Your task to perform on an android device: What's a good restaurant in New York? Image 0: 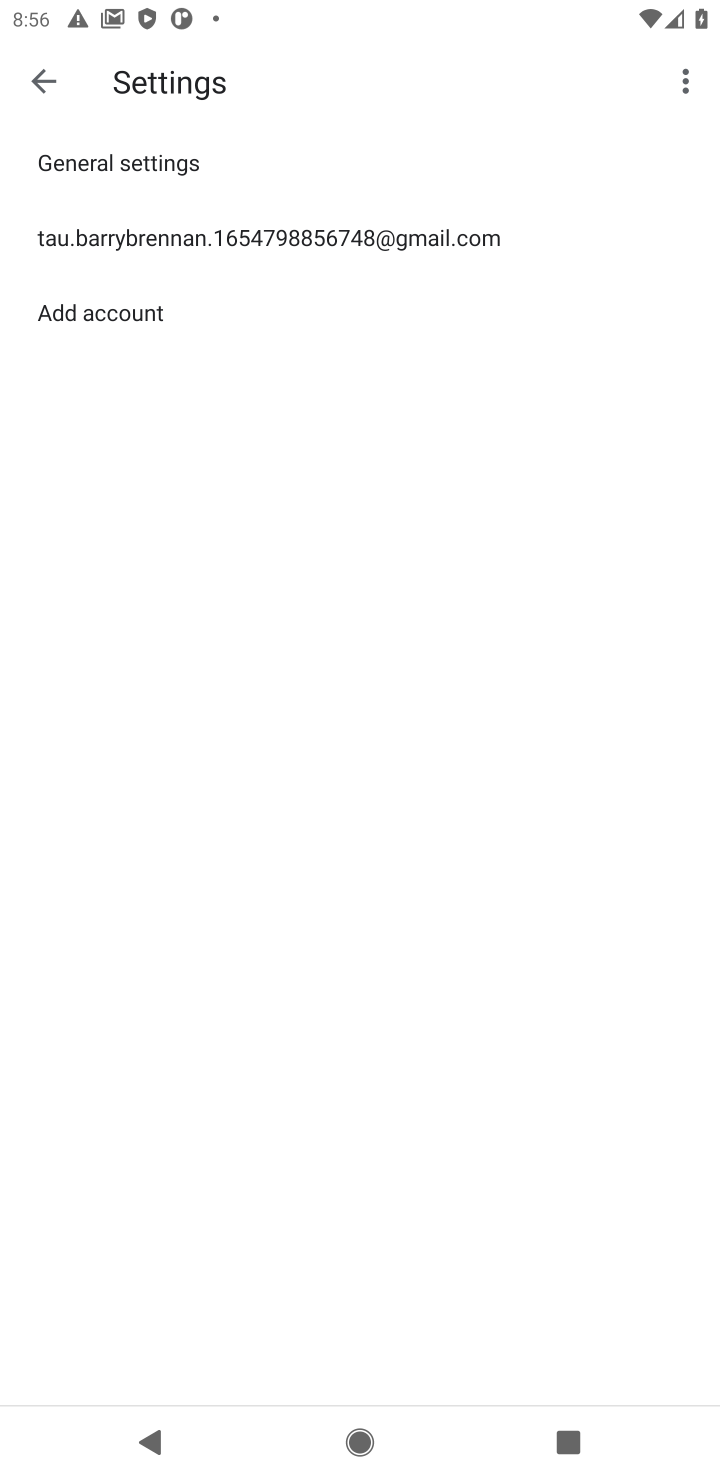
Step 0: press home button
Your task to perform on an android device: What's a good restaurant in New York? Image 1: 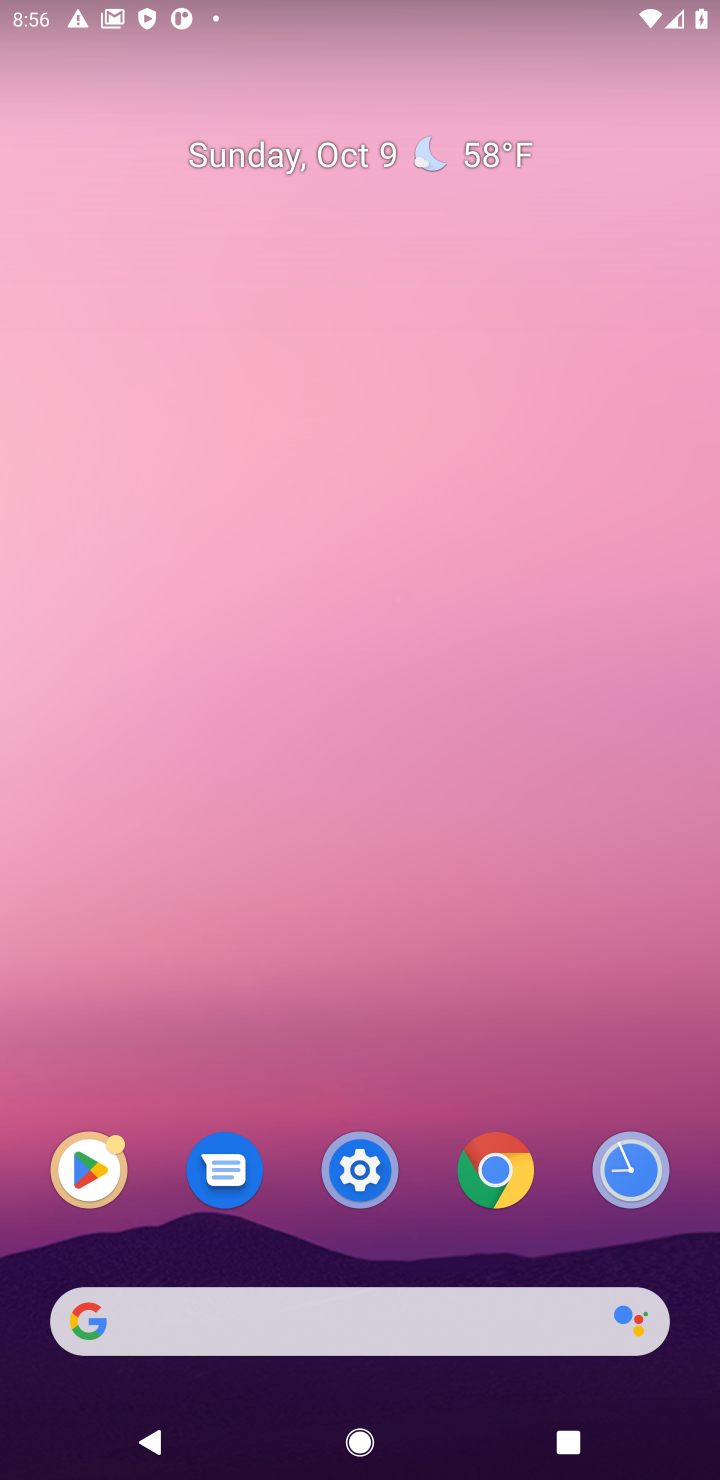
Step 1: click (366, 1319)
Your task to perform on an android device: What's a good restaurant in New York? Image 2: 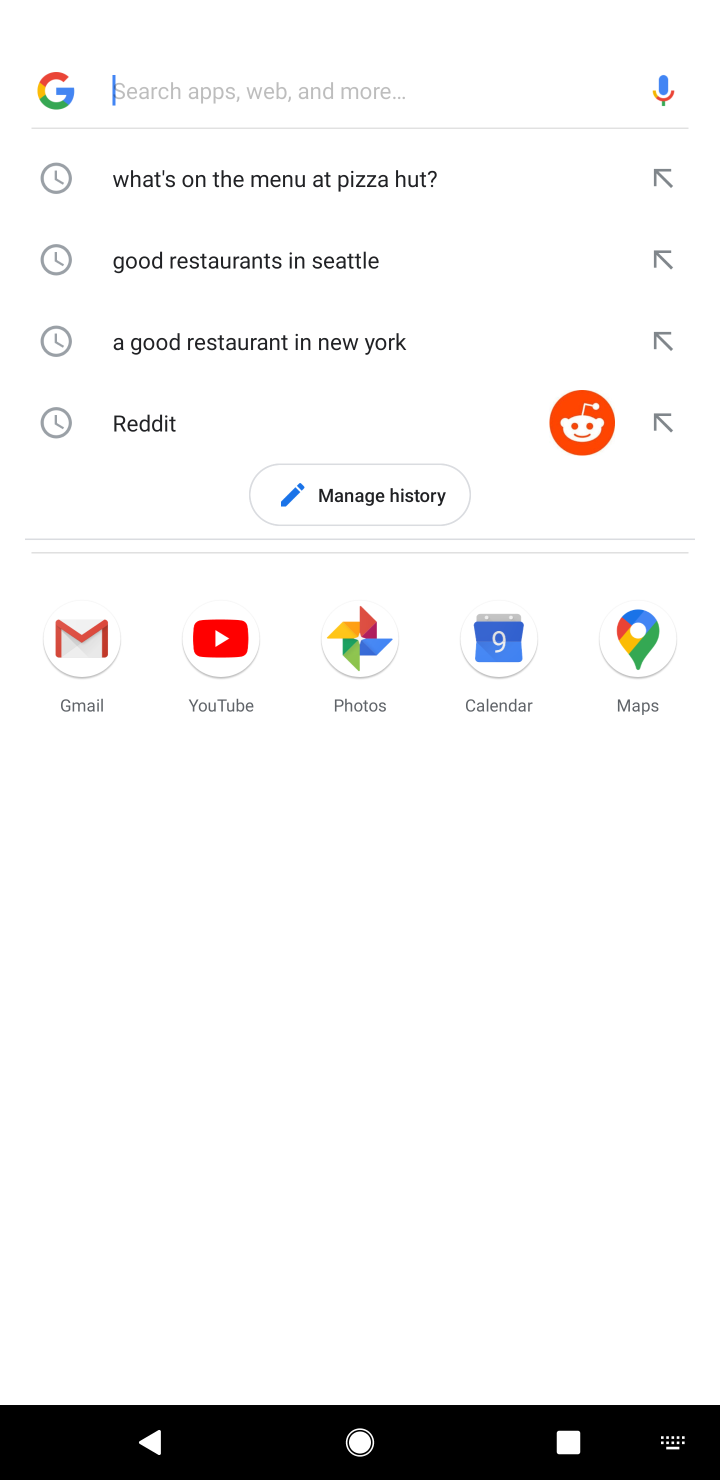
Step 2: type "What's a good restaurant in New York?"
Your task to perform on an android device: What's a good restaurant in New York? Image 3: 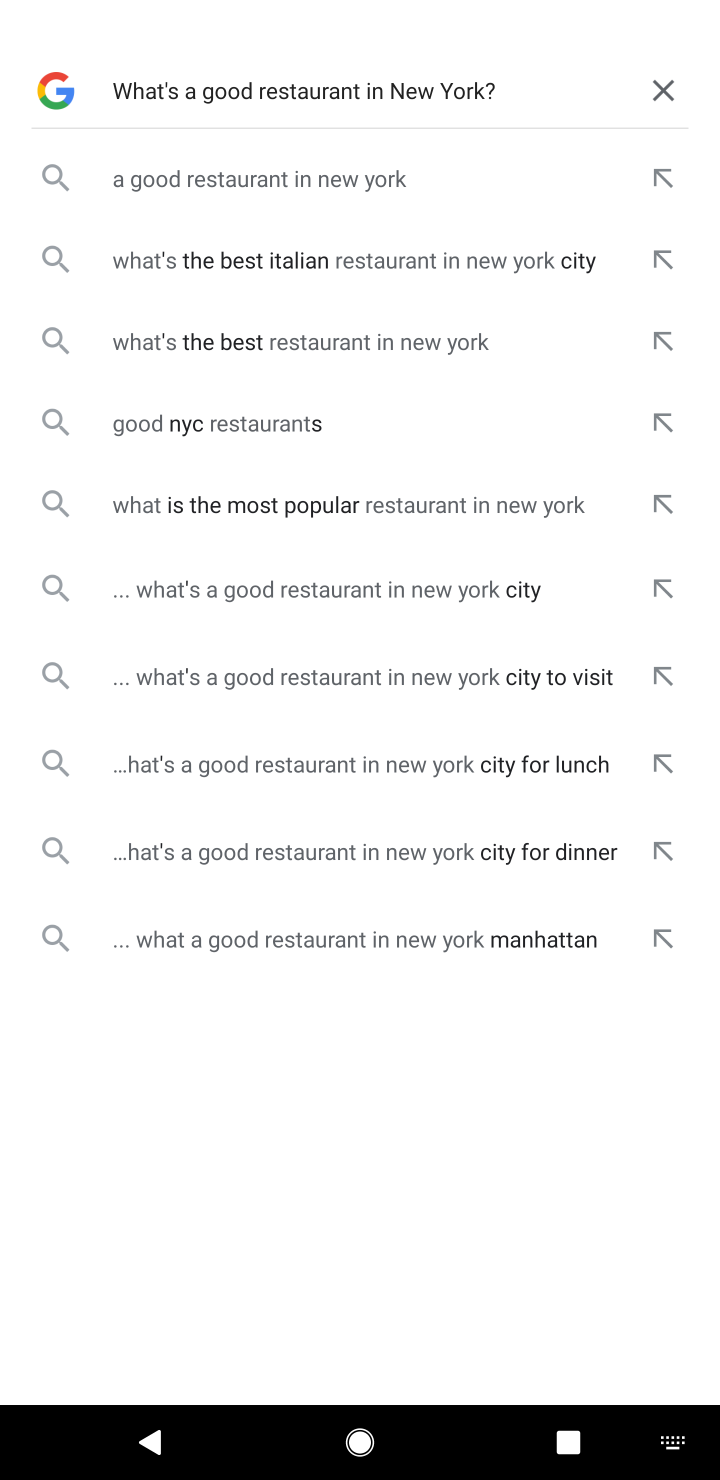
Step 3: click (235, 188)
Your task to perform on an android device: What's a good restaurant in New York? Image 4: 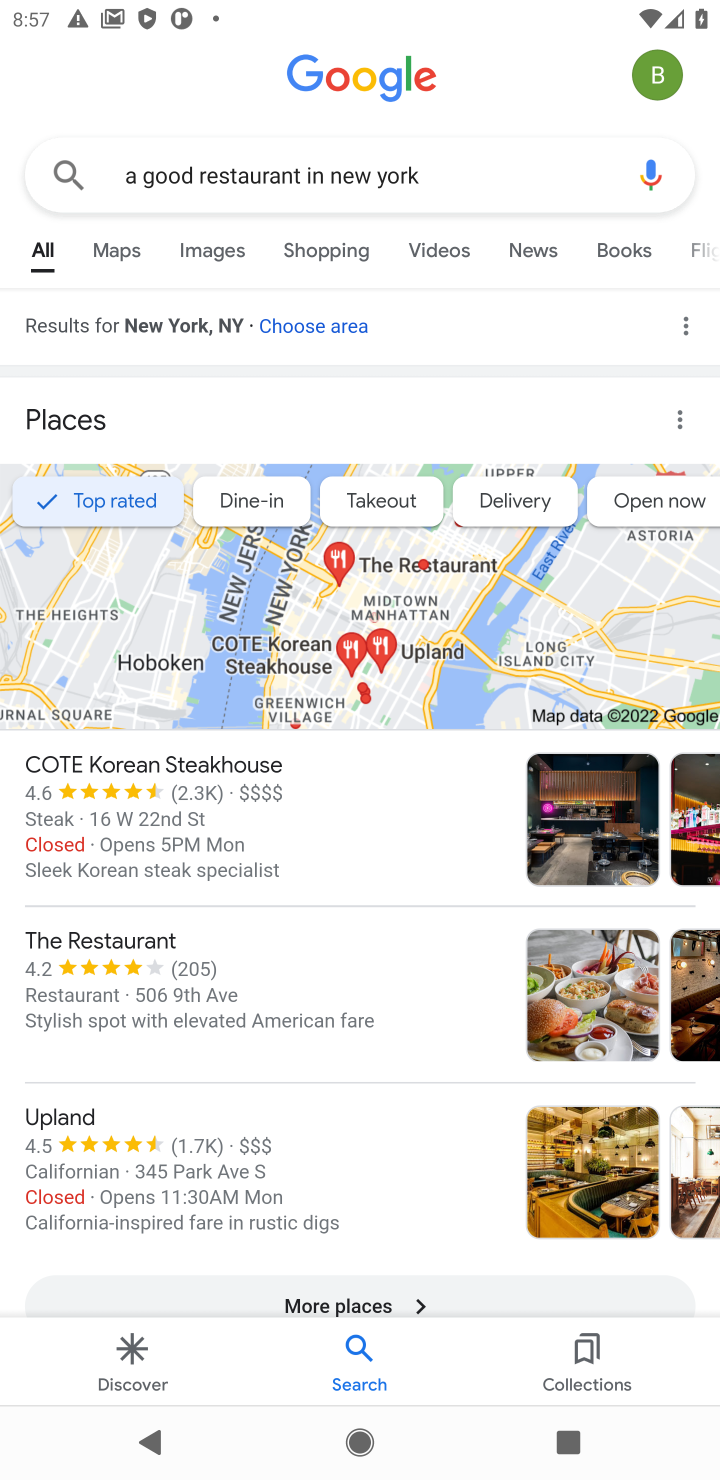
Step 4: drag from (378, 972) to (349, 556)
Your task to perform on an android device: What's a good restaurant in New York? Image 5: 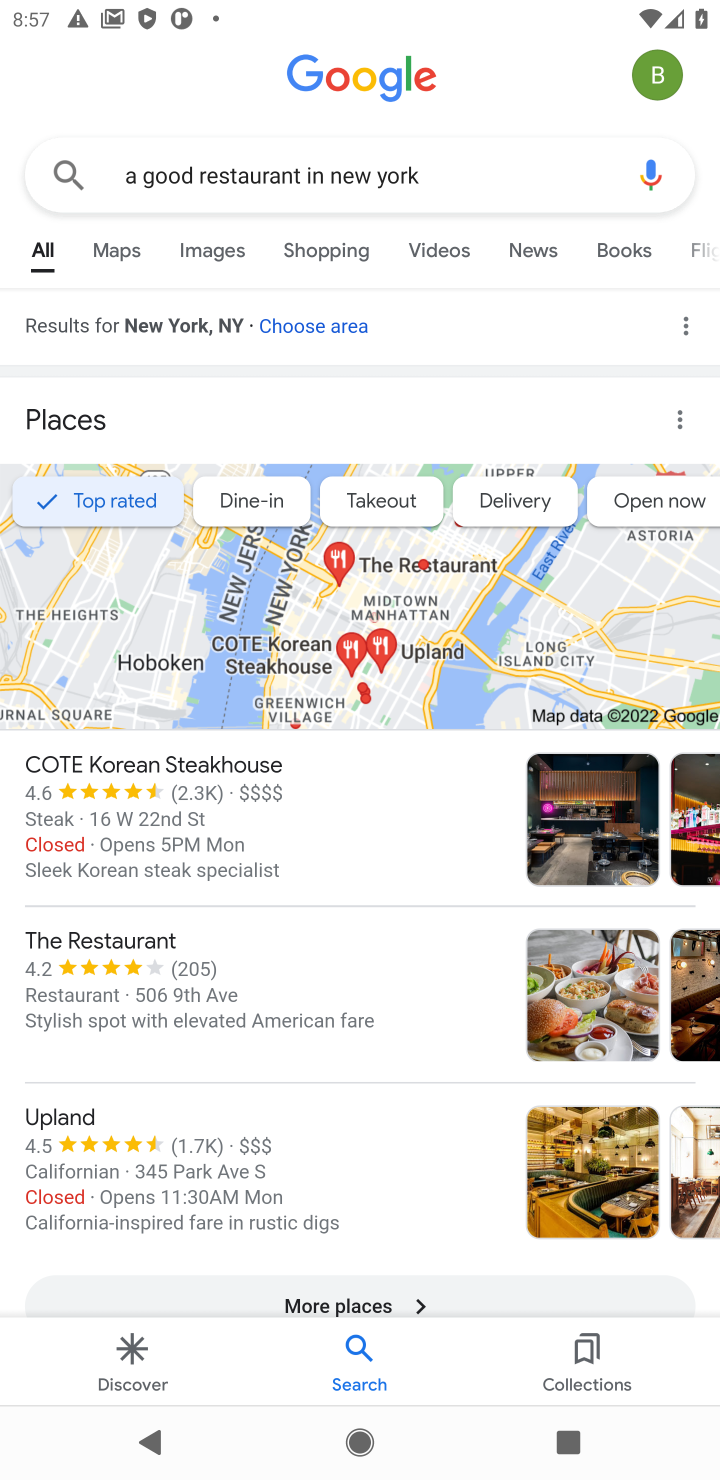
Step 5: click (340, 1288)
Your task to perform on an android device: What's a good restaurant in New York? Image 6: 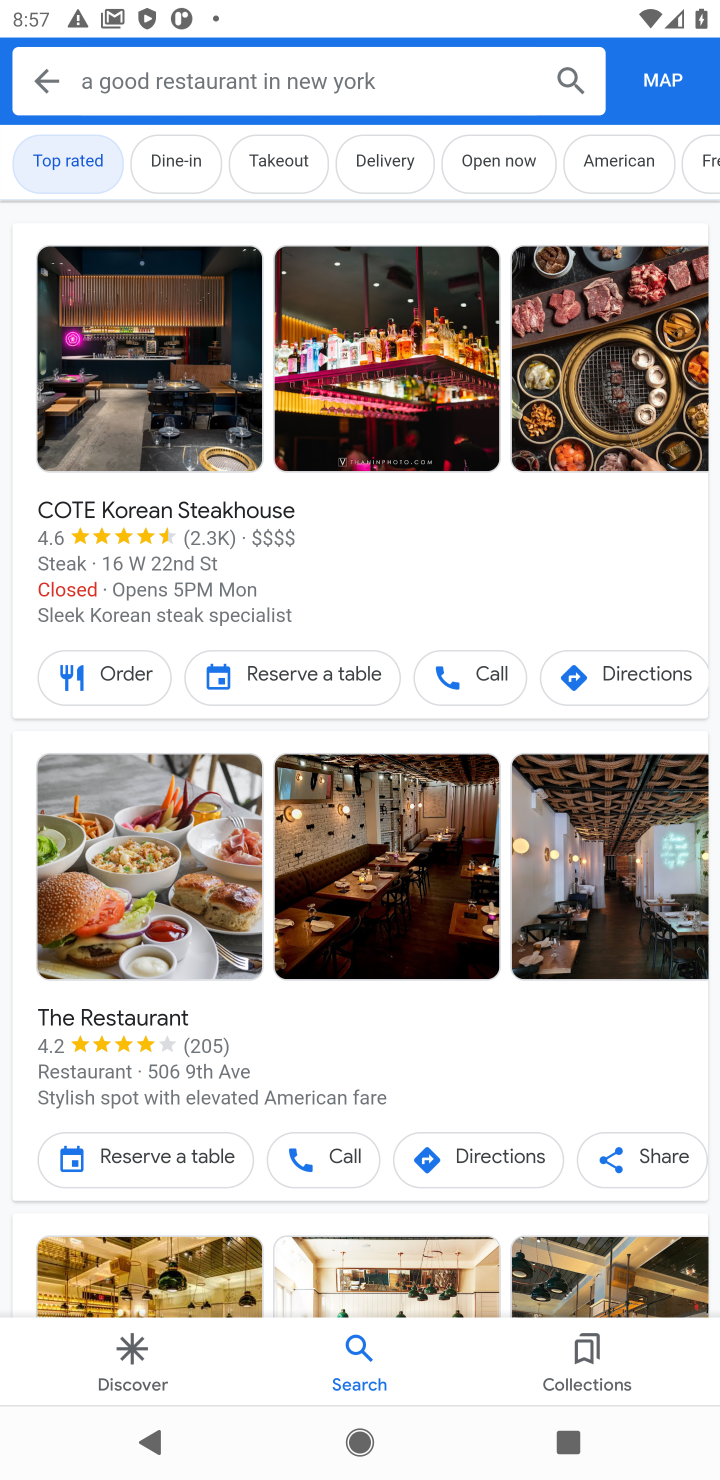
Step 6: task complete